Your task to perform on an android device: add a label to a message in the gmail app Image 0: 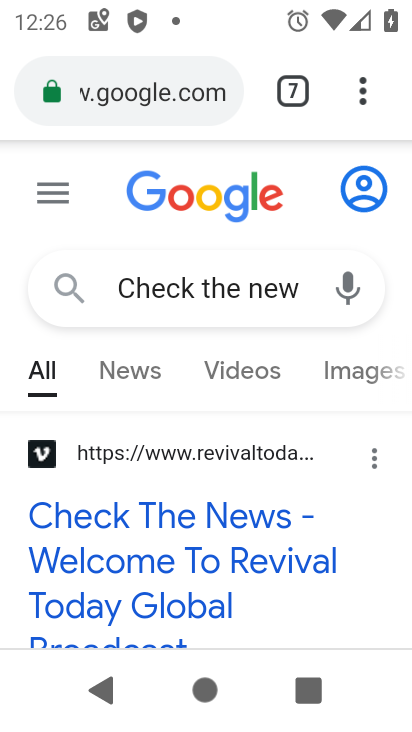
Step 0: press home button
Your task to perform on an android device: add a label to a message in the gmail app Image 1: 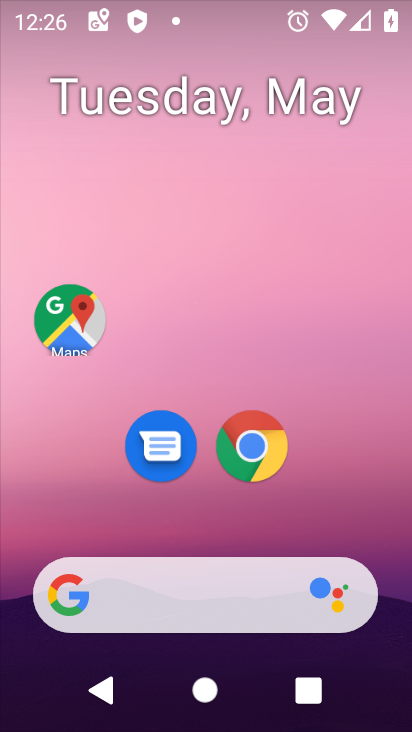
Step 1: drag from (316, 525) to (321, 207)
Your task to perform on an android device: add a label to a message in the gmail app Image 2: 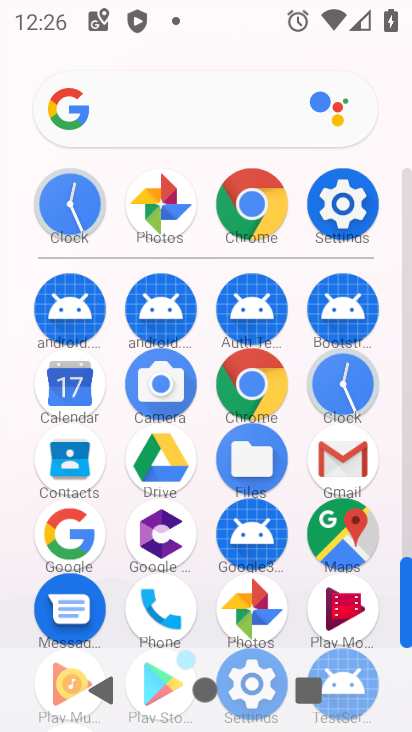
Step 2: click (343, 465)
Your task to perform on an android device: add a label to a message in the gmail app Image 3: 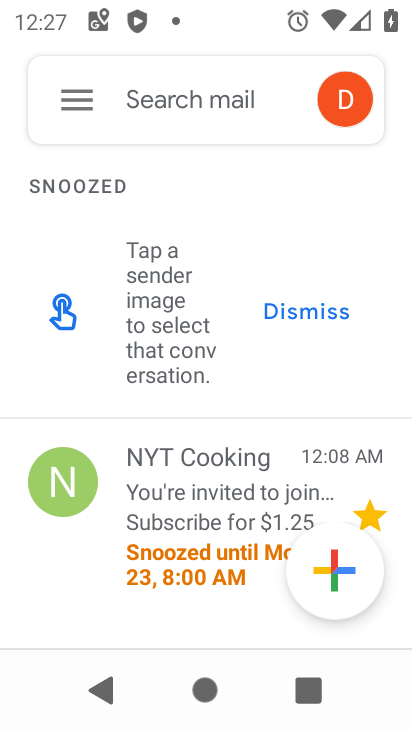
Step 3: click (48, 479)
Your task to perform on an android device: add a label to a message in the gmail app Image 4: 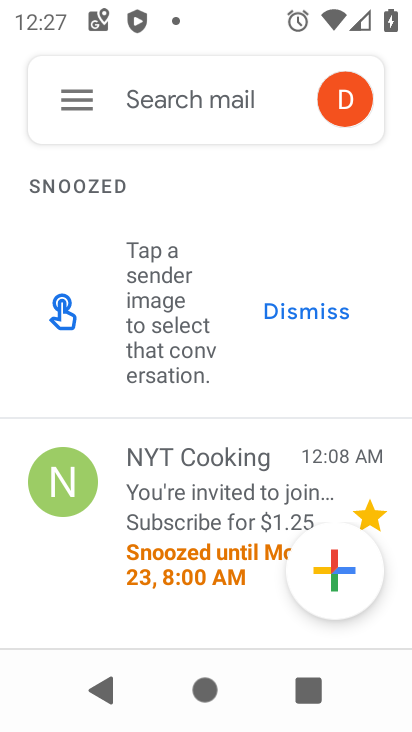
Step 4: click (47, 480)
Your task to perform on an android device: add a label to a message in the gmail app Image 5: 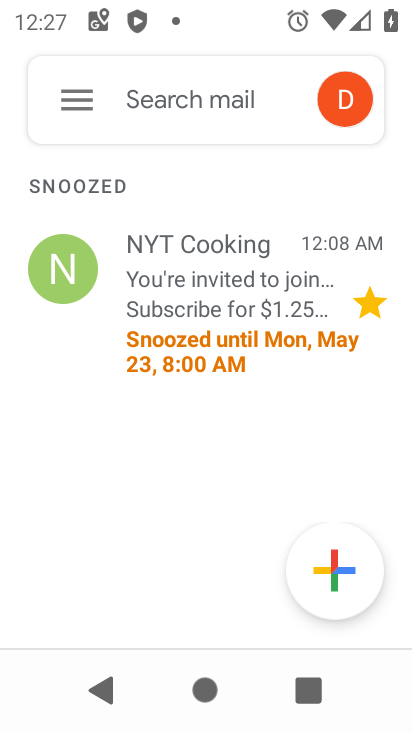
Step 5: click (58, 265)
Your task to perform on an android device: add a label to a message in the gmail app Image 6: 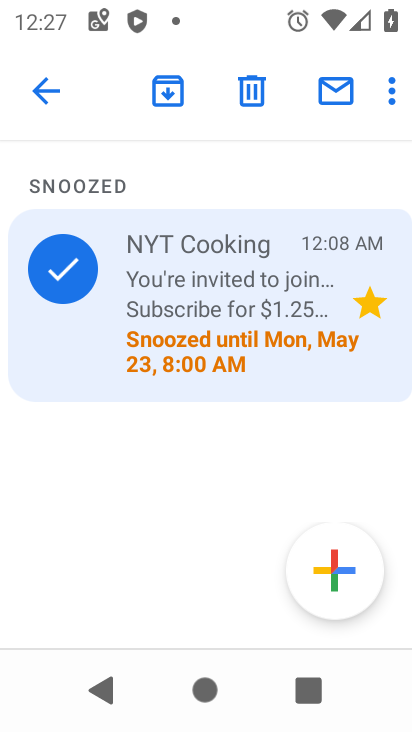
Step 6: click (383, 86)
Your task to perform on an android device: add a label to a message in the gmail app Image 7: 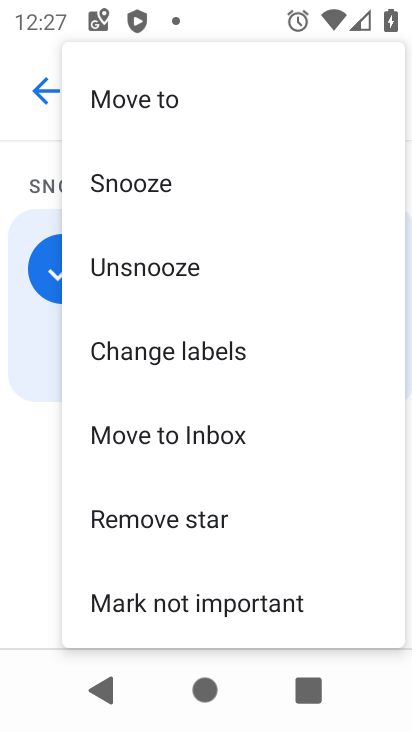
Step 7: click (177, 343)
Your task to perform on an android device: add a label to a message in the gmail app Image 8: 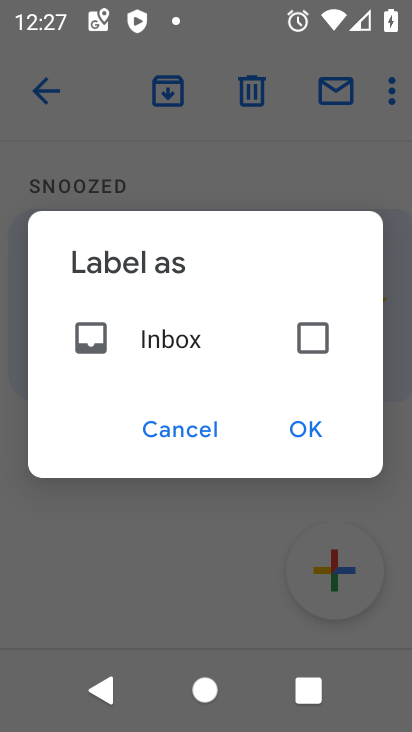
Step 8: click (305, 416)
Your task to perform on an android device: add a label to a message in the gmail app Image 9: 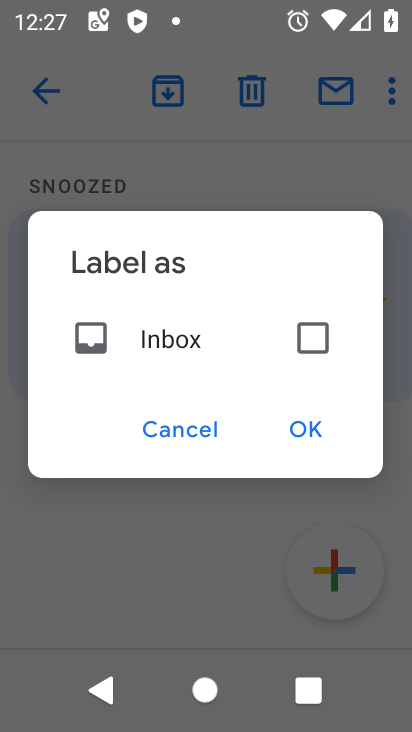
Step 9: click (330, 327)
Your task to perform on an android device: add a label to a message in the gmail app Image 10: 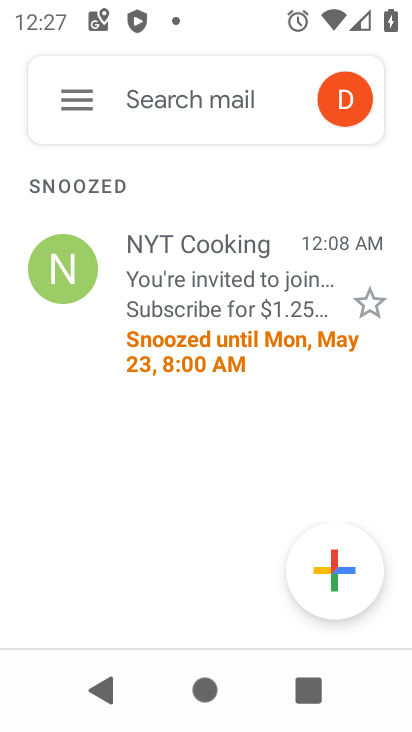
Step 10: click (93, 268)
Your task to perform on an android device: add a label to a message in the gmail app Image 11: 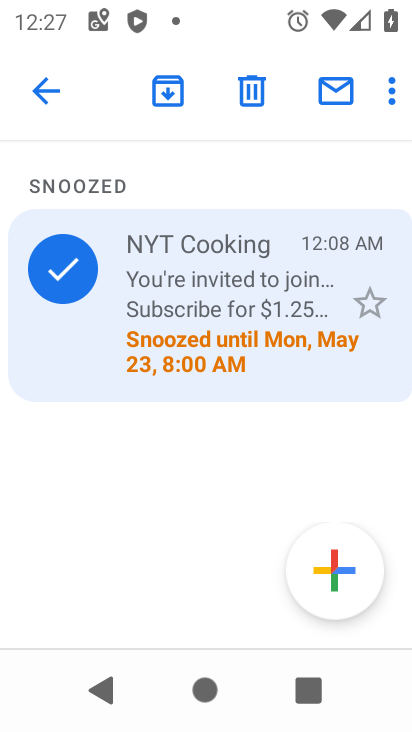
Step 11: click (58, 266)
Your task to perform on an android device: add a label to a message in the gmail app Image 12: 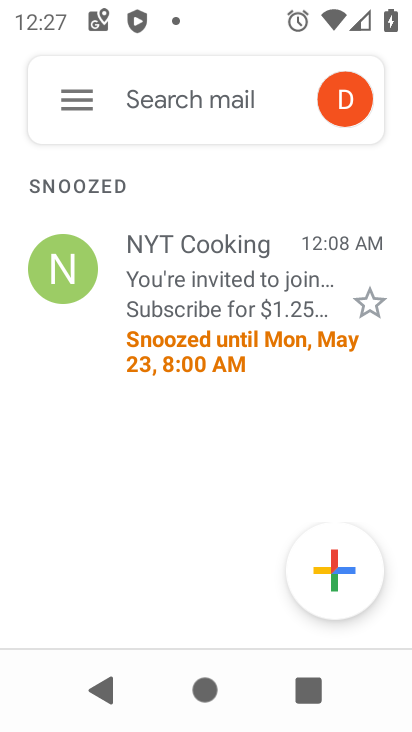
Step 12: click (55, 275)
Your task to perform on an android device: add a label to a message in the gmail app Image 13: 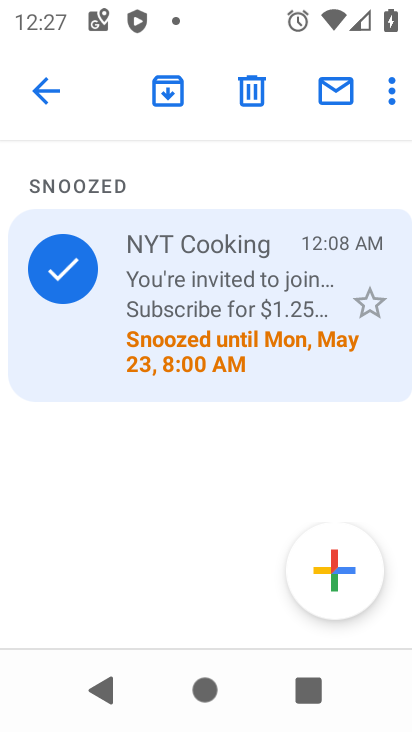
Step 13: click (391, 86)
Your task to perform on an android device: add a label to a message in the gmail app Image 14: 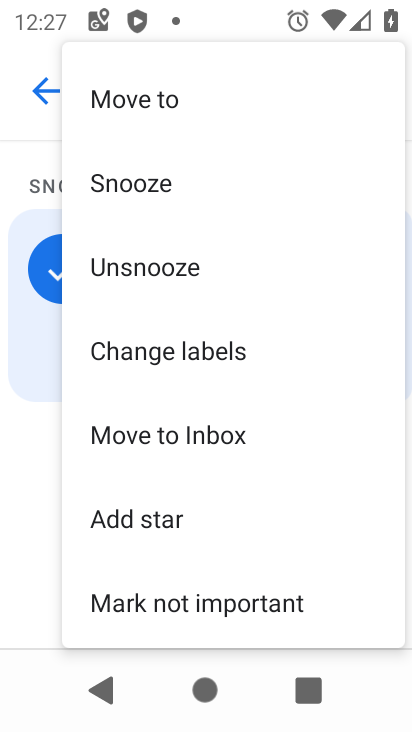
Step 14: click (202, 352)
Your task to perform on an android device: add a label to a message in the gmail app Image 15: 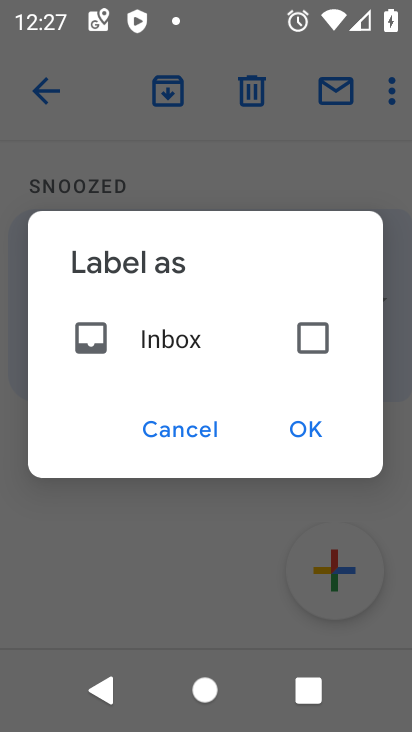
Step 15: click (320, 329)
Your task to perform on an android device: add a label to a message in the gmail app Image 16: 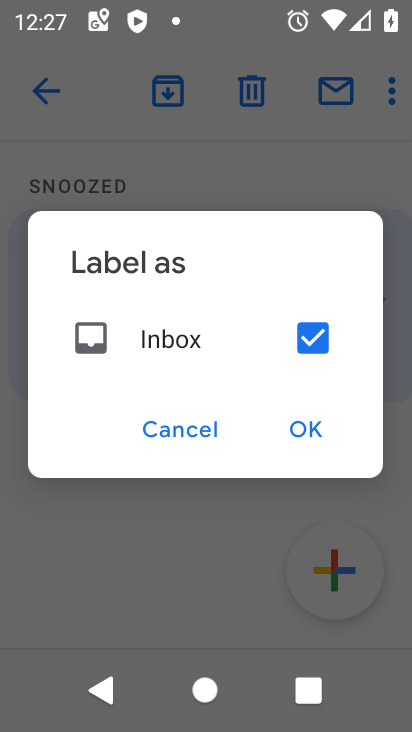
Step 16: click (303, 410)
Your task to perform on an android device: add a label to a message in the gmail app Image 17: 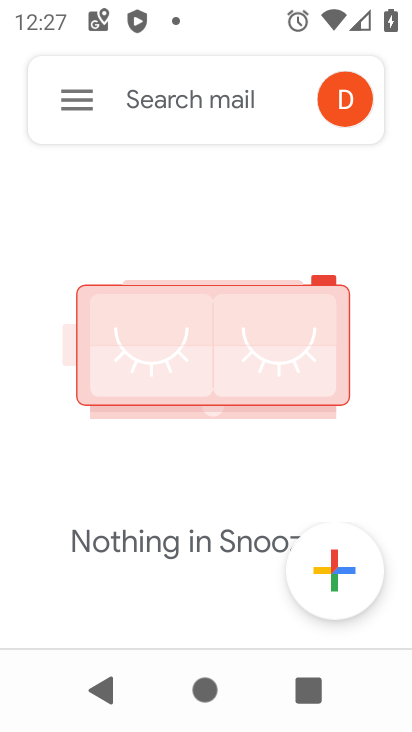
Step 17: task complete